Your task to perform on an android device: open app "ColorNote Notepad Notes" (install if not already installed), go to login, and select forgot password Image 0: 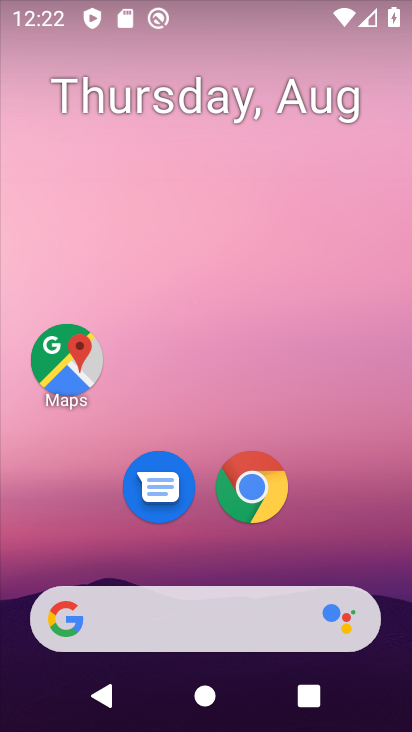
Step 0: press home button
Your task to perform on an android device: open app "ColorNote Notepad Notes" (install if not already installed), go to login, and select forgot password Image 1: 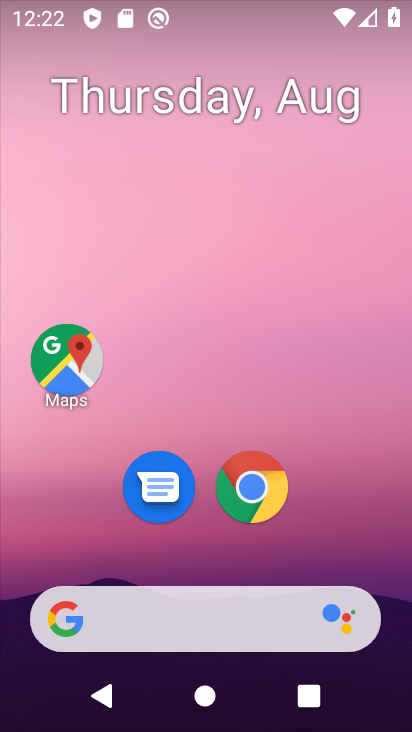
Step 1: press home button
Your task to perform on an android device: open app "ColorNote Notepad Notes" (install if not already installed), go to login, and select forgot password Image 2: 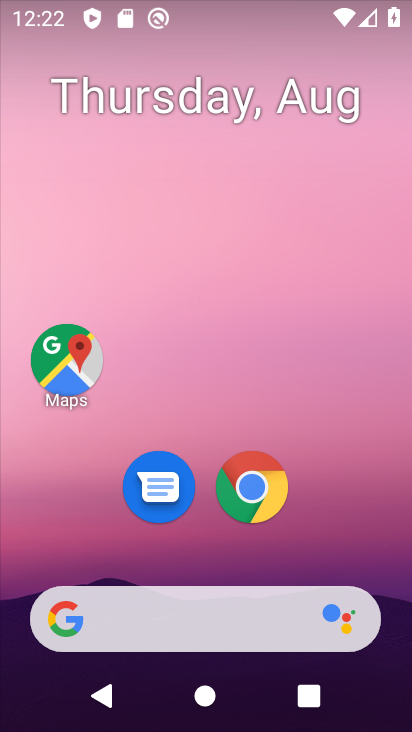
Step 2: drag from (214, 561) to (217, 109)
Your task to perform on an android device: open app "ColorNote Notepad Notes" (install if not already installed), go to login, and select forgot password Image 3: 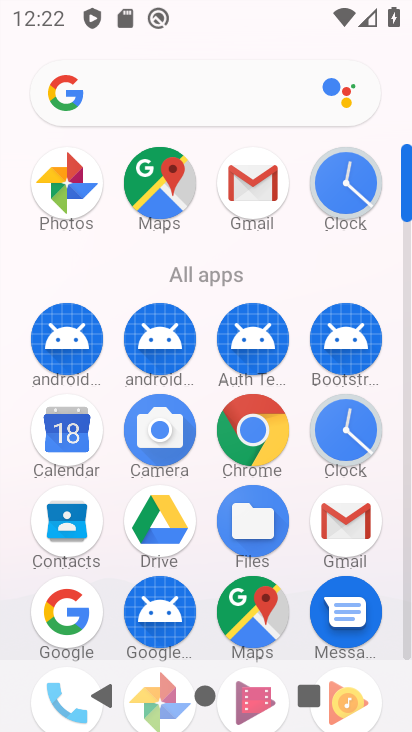
Step 3: drag from (199, 581) to (237, 52)
Your task to perform on an android device: open app "ColorNote Notepad Notes" (install if not already installed), go to login, and select forgot password Image 4: 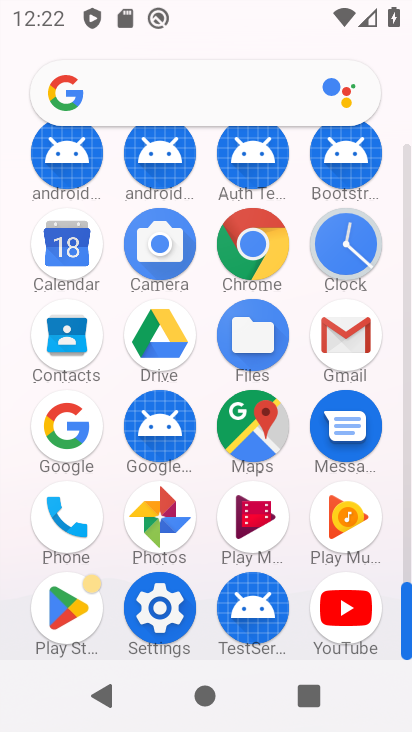
Step 4: click (62, 614)
Your task to perform on an android device: open app "ColorNote Notepad Notes" (install if not already installed), go to login, and select forgot password Image 5: 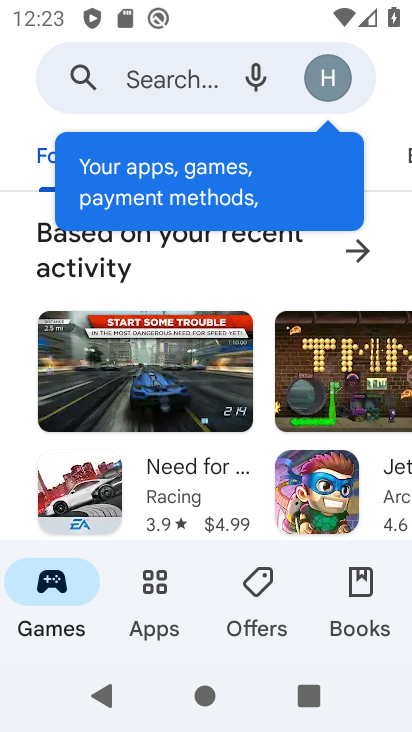
Step 5: click (166, 73)
Your task to perform on an android device: open app "ColorNote Notepad Notes" (install if not already installed), go to login, and select forgot password Image 6: 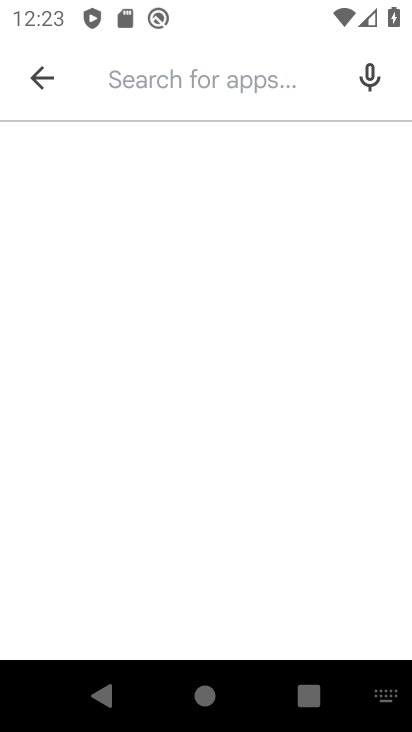
Step 6: type "ColorNote Notepad Notes"
Your task to perform on an android device: open app "ColorNote Notepad Notes" (install if not already installed), go to login, and select forgot password Image 7: 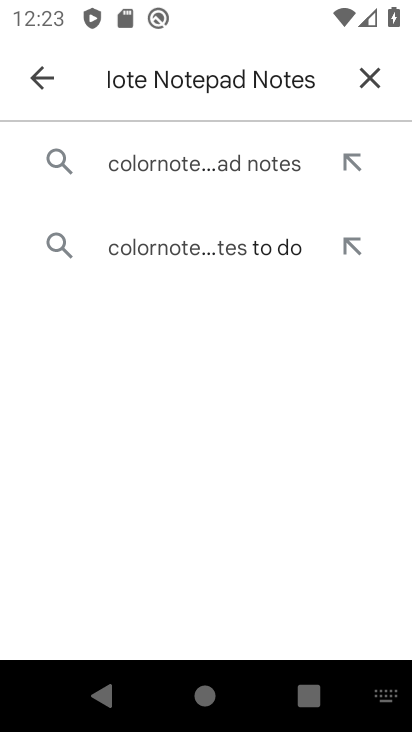
Step 7: click (199, 164)
Your task to perform on an android device: open app "ColorNote Notepad Notes" (install if not already installed), go to login, and select forgot password Image 8: 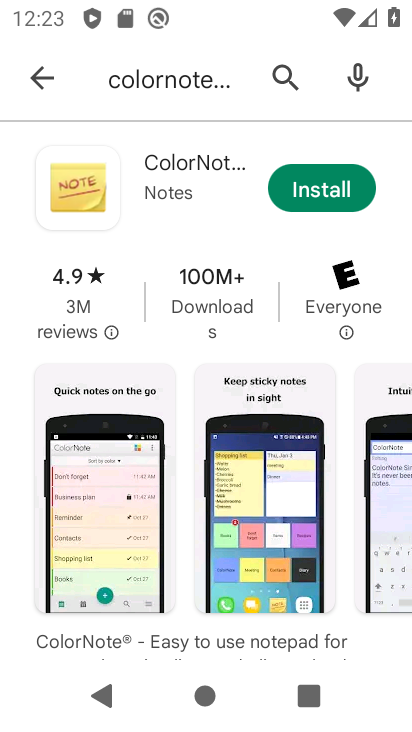
Step 8: click (317, 186)
Your task to perform on an android device: open app "ColorNote Notepad Notes" (install if not already installed), go to login, and select forgot password Image 9: 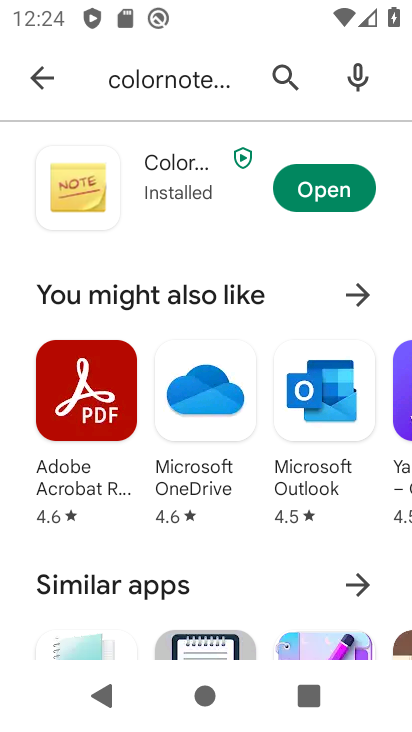
Step 9: click (321, 188)
Your task to perform on an android device: open app "ColorNote Notepad Notes" (install if not already installed), go to login, and select forgot password Image 10: 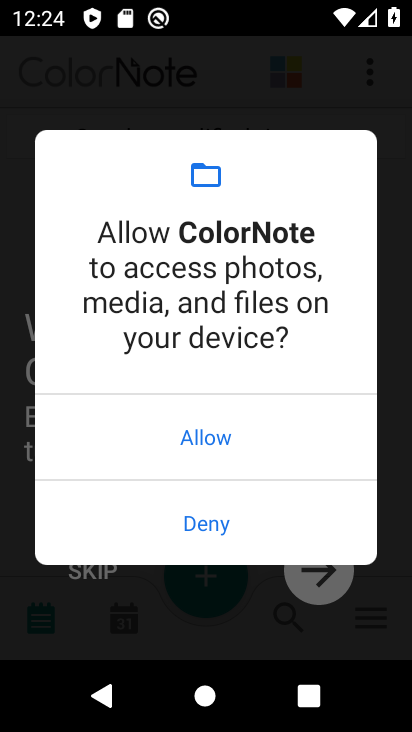
Step 10: click (186, 439)
Your task to perform on an android device: open app "ColorNote Notepad Notes" (install if not already installed), go to login, and select forgot password Image 11: 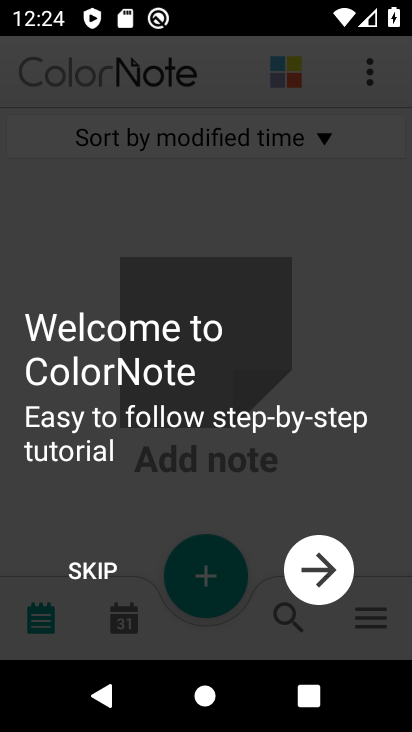
Step 11: click (92, 565)
Your task to perform on an android device: open app "ColorNote Notepad Notes" (install if not already installed), go to login, and select forgot password Image 12: 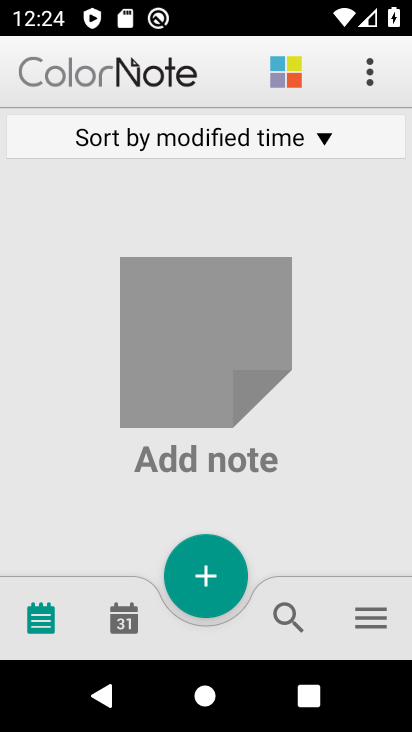
Step 12: click (360, 622)
Your task to perform on an android device: open app "ColorNote Notepad Notes" (install if not already installed), go to login, and select forgot password Image 13: 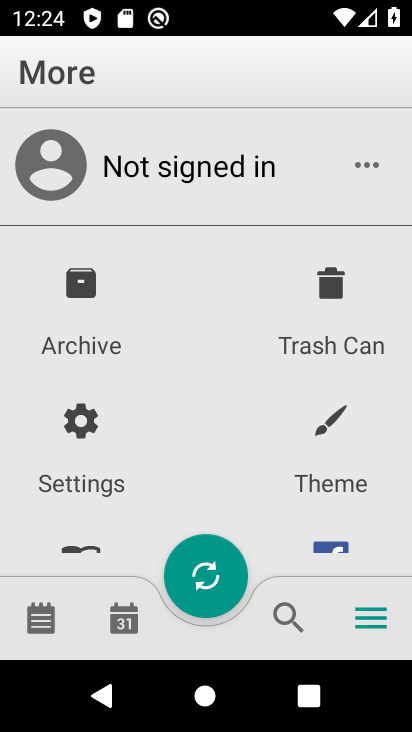
Step 13: click (178, 170)
Your task to perform on an android device: open app "ColorNote Notepad Notes" (install if not already installed), go to login, and select forgot password Image 14: 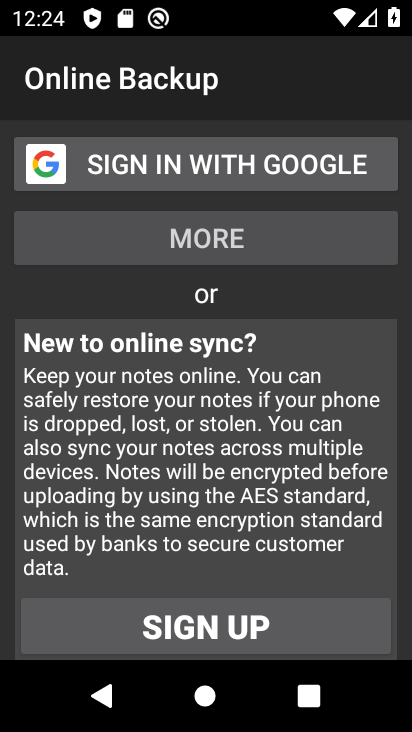
Step 14: task complete